Your task to perform on an android device: Open accessibility settings Image 0: 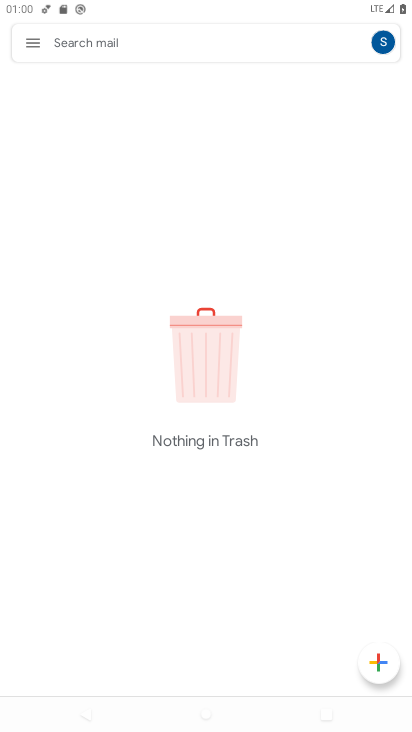
Step 0: press home button
Your task to perform on an android device: Open accessibility settings Image 1: 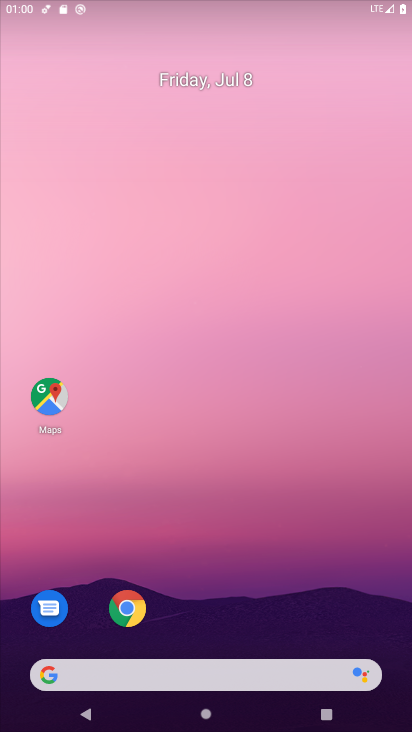
Step 1: drag from (263, 621) to (258, 210)
Your task to perform on an android device: Open accessibility settings Image 2: 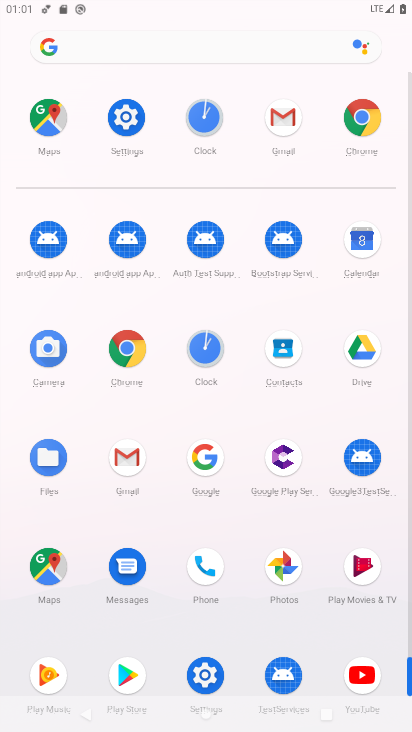
Step 2: click (125, 99)
Your task to perform on an android device: Open accessibility settings Image 3: 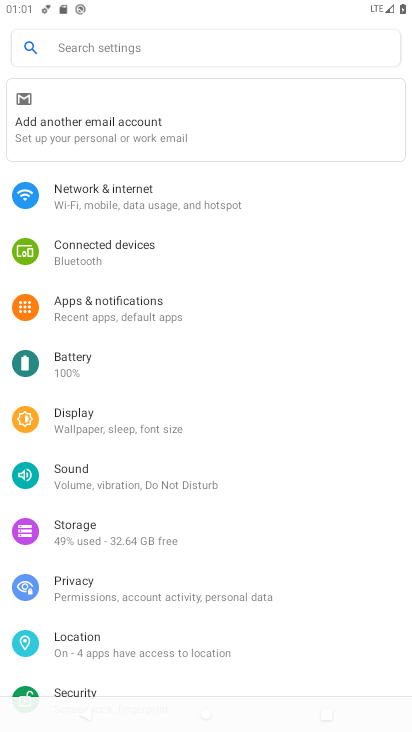
Step 3: drag from (129, 566) to (163, 207)
Your task to perform on an android device: Open accessibility settings Image 4: 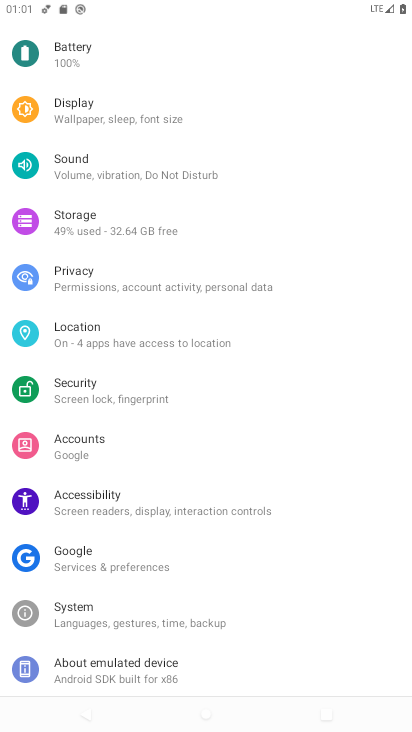
Step 4: click (80, 487)
Your task to perform on an android device: Open accessibility settings Image 5: 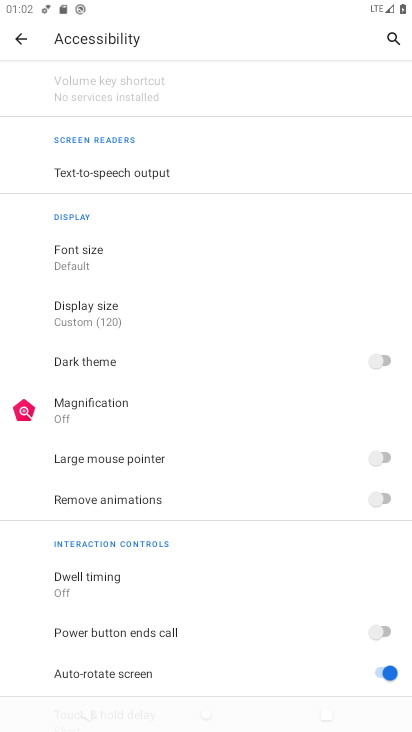
Step 5: task complete